Your task to perform on an android device: star an email in the gmail app Image 0: 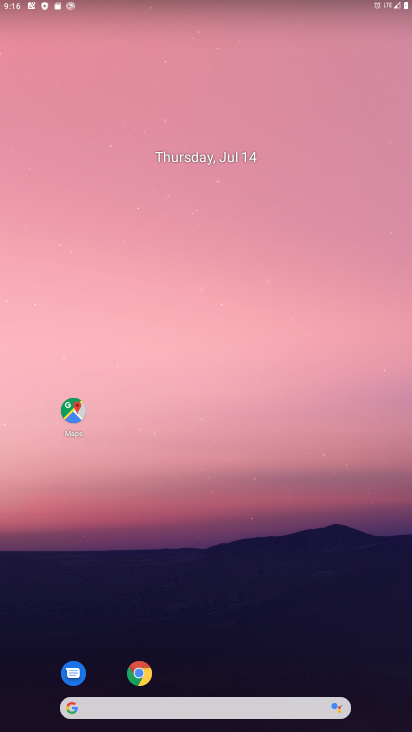
Step 0: press home button
Your task to perform on an android device: star an email in the gmail app Image 1: 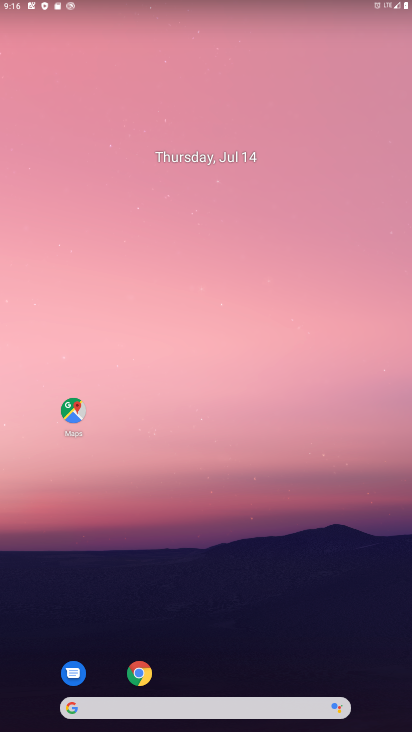
Step 1: drag from (235, 699) to (162, 185)
Your task to perform on an android device: star an email in the gmail app Image 2: 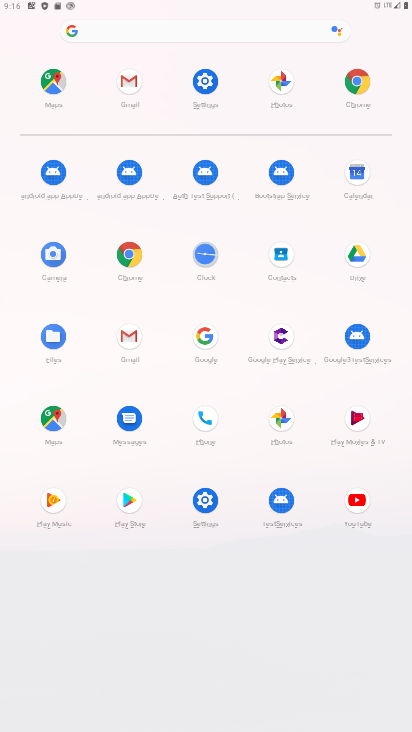
Step 2: click (124, 82)
Your task to perform on an android device: star an email in the gmail app Image 3: 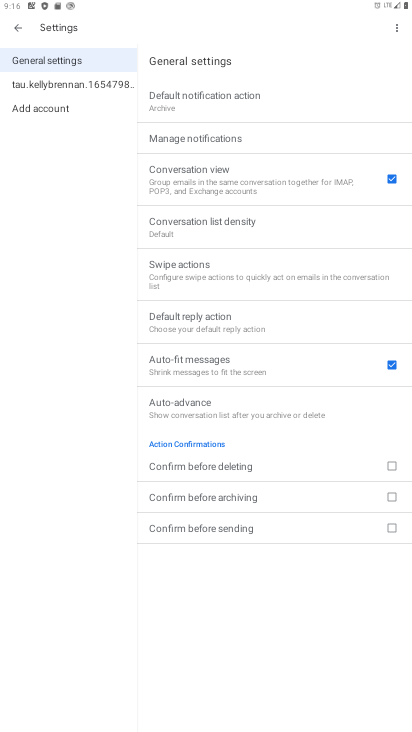
Step 3: press back button
Your task to perform on an android device: star an email in the gmail app Image 4: 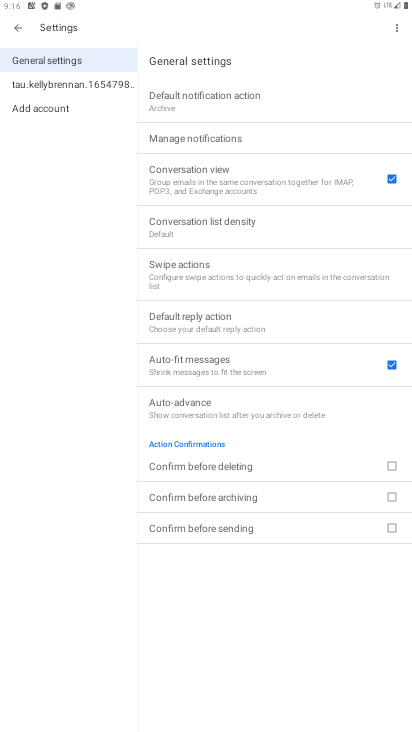
Step 4: press back button
Your task to perform on an android device: star an email in the gmail app Image 5: 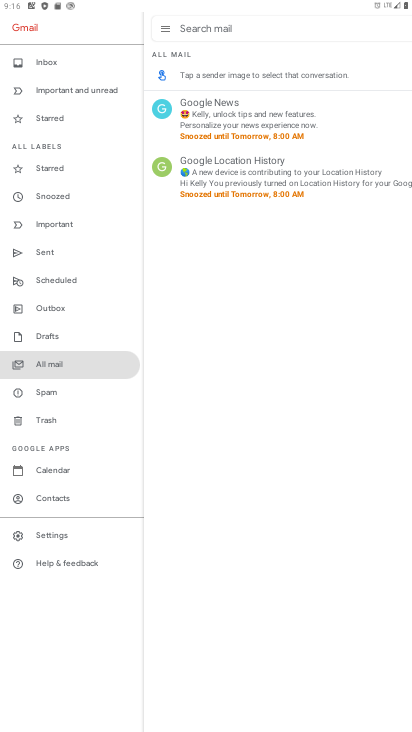
Step 5: click (275, 119)
Your task to perform on an android device: star an email in the gmail app Image 6: 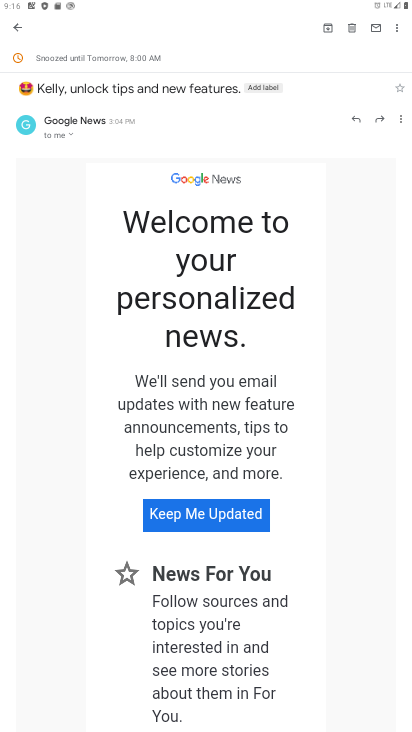
Step 6: click (400, 87)
Your task to perform on an android device: star an email in the gmail app Image 7: 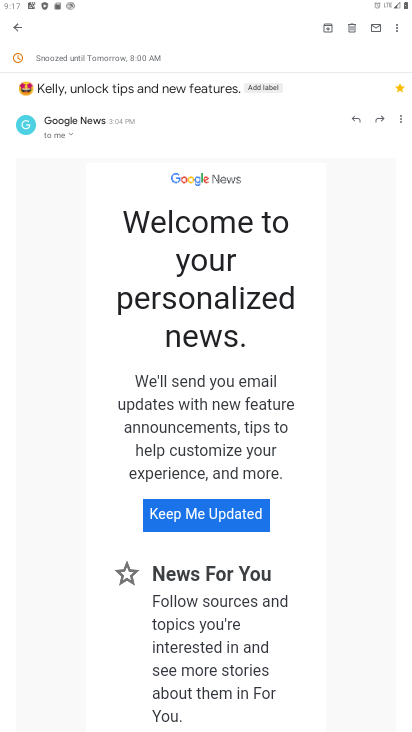
Step 7: task complete